Your task to perform on an android device: Open Android settings Image 0: 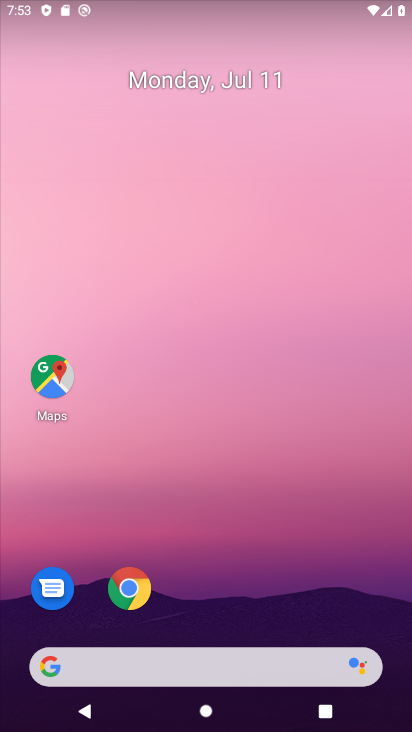
Step 0: drag from (132, 720) to (208, 76)
Your task to perform on an android device: Open Android settings Image 1: 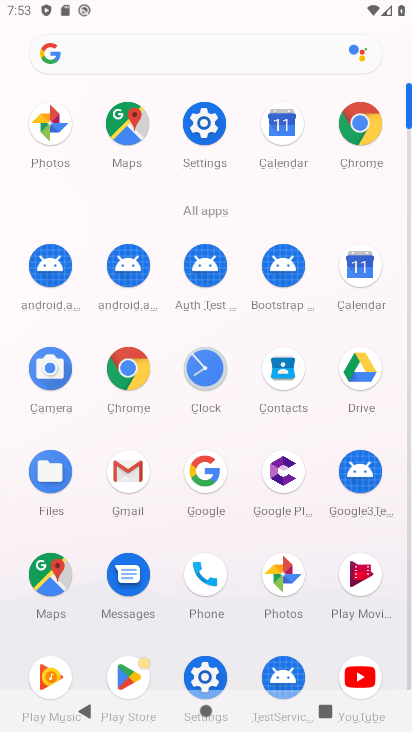
Step 1: click (202, 124)
Your task to perform on an android device: Open Android settings Image 2: 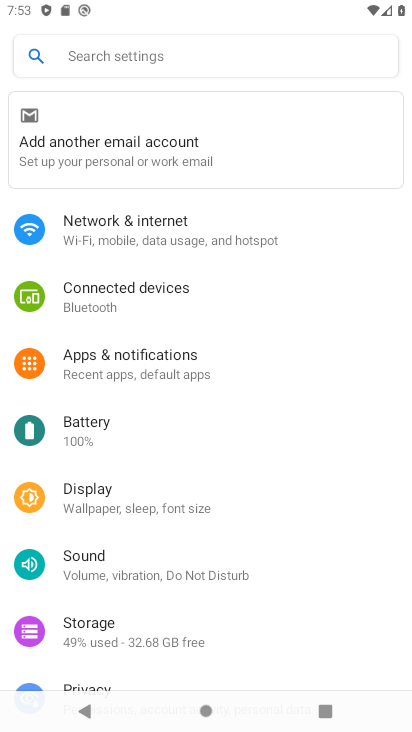
Step 2: drag from (178, 490) to (218, 115)
Your task to perform on an android device: Open Android settings Image 3: 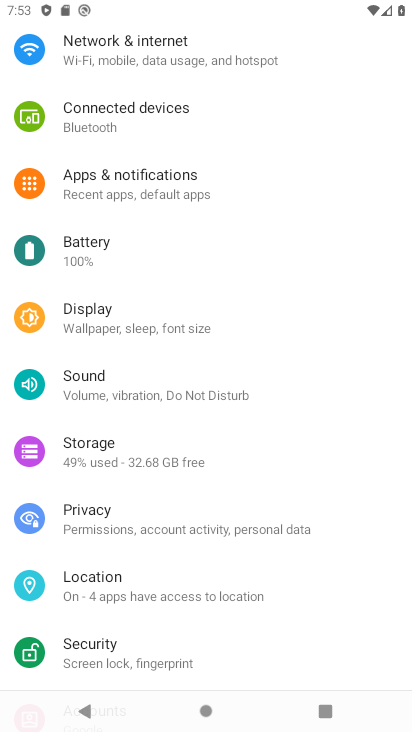
Step 3: drag from (221, 362) to (191, 182)
Your task to perform on an android device: Open Android settings Image 4: 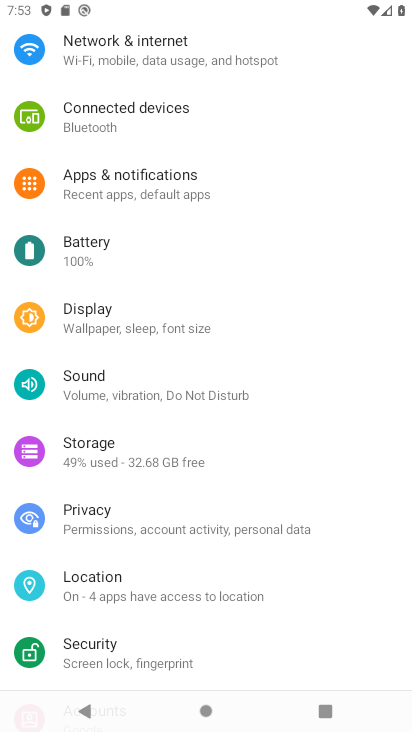
Step 4: drag from (241, 660) to (247, 38)
Your task to perform on an android device: Open Android settings Image 5: 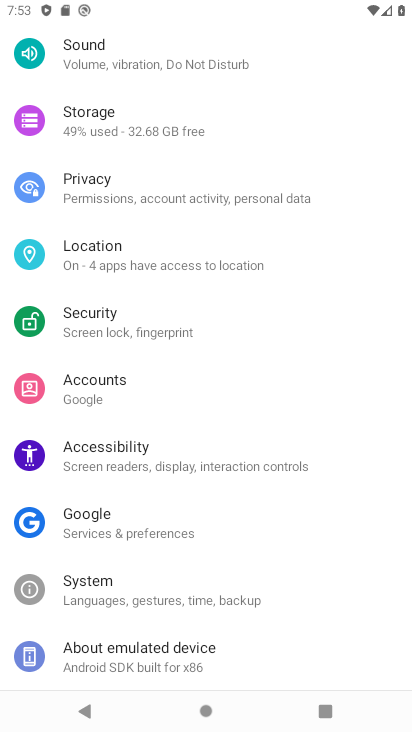
Step 5: drag from (238, 512) to (266, 19)
Your task to perform on an android device: Open Android settings Image 6: 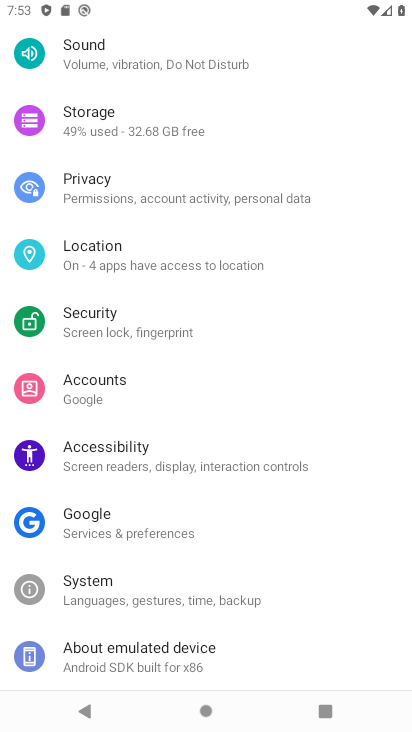
Step 6: click (198, 655)
Your task to perform on an android device: Open Android settings Image 7: 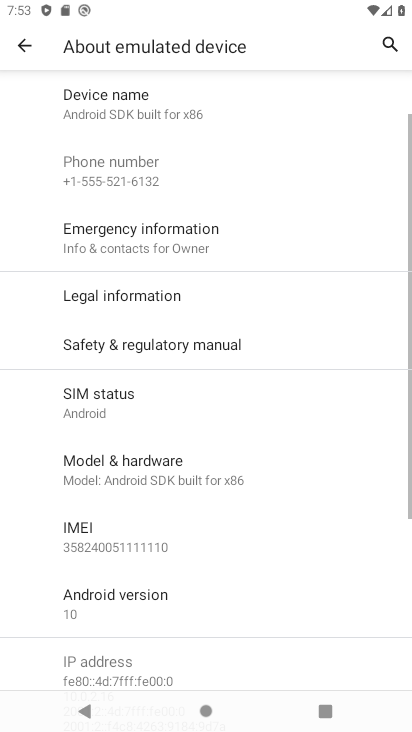
Step 7: task complete